Your task to perform on an android device: Open ESPN.com Image 0: 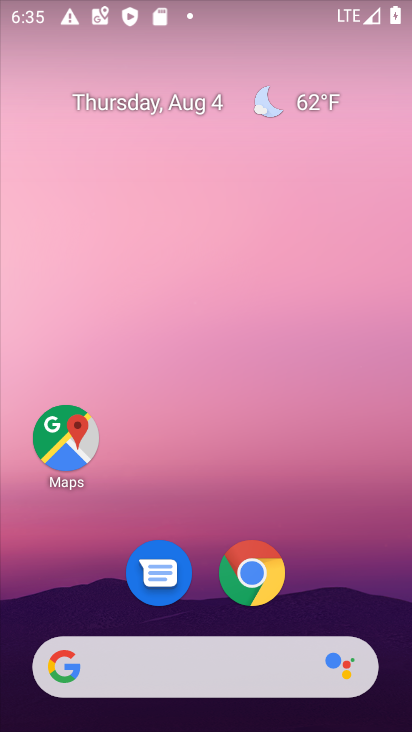
Step 0: click (75, 672)
Your task to perform on an android device: Open ESPN.com Image 1: 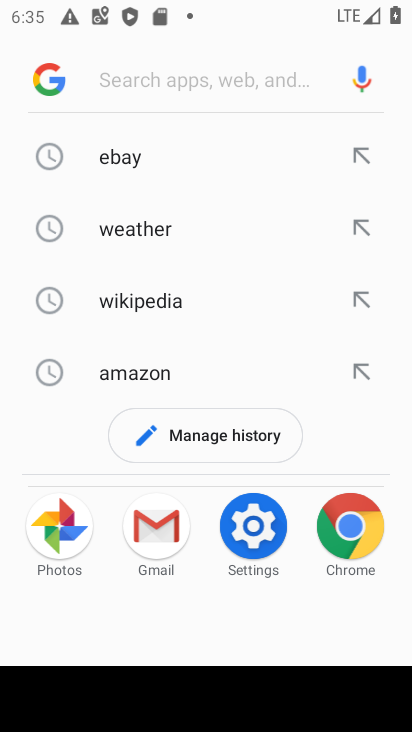
Step 1: type "ESPN.com"
Your task to perform on an android device: Open ESPN.com Image 2: 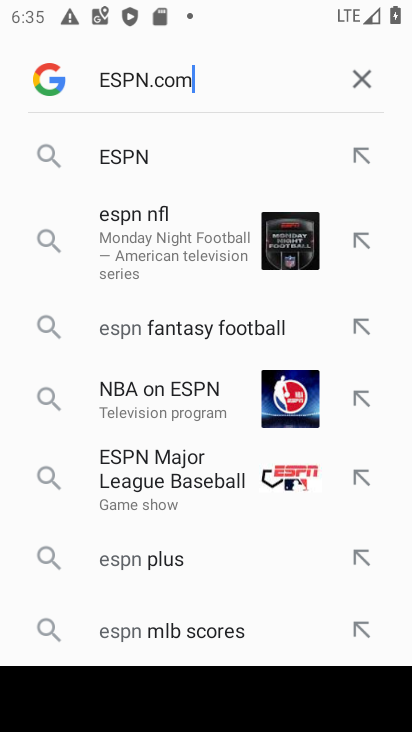
Step 2: press enter
Your task to perform on an android device: Open ESPN.com Image 3: 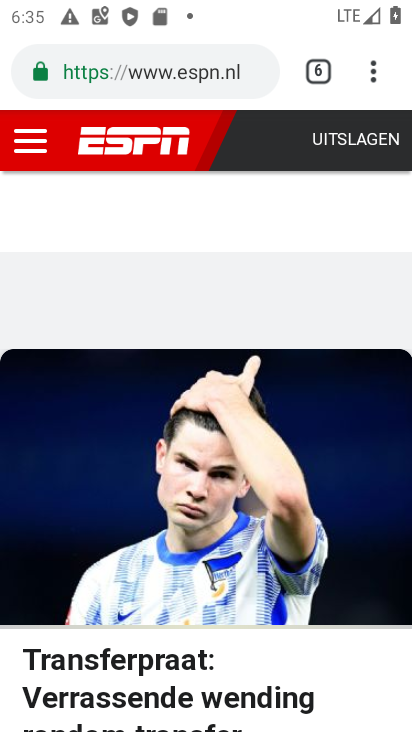
Step 3: task complete